Your task to perform on an android device: Search for Italian restaurants on Maps Image 0: 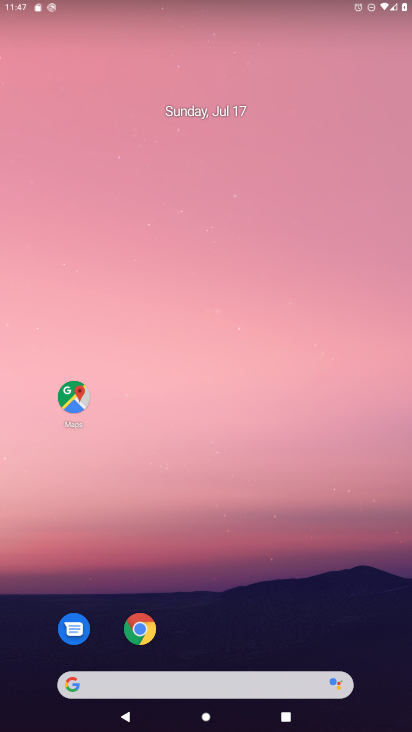
Step 0: click (72, 402)
Your task to perform on an android device: Search for Italian restaurants on Maps Image 1: 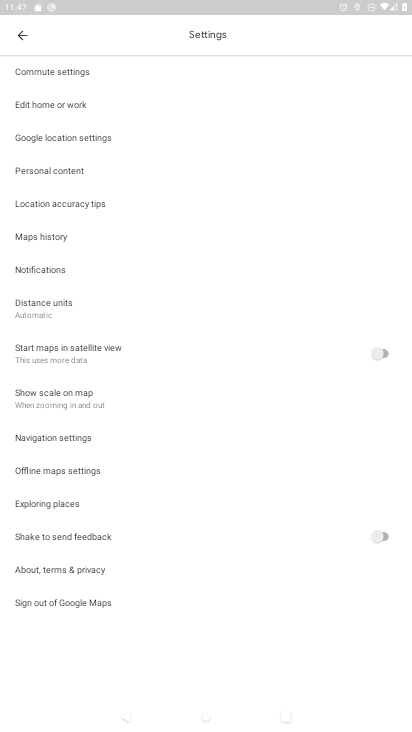
Step 1: press back button
Your task to perform on an android device: Search for Italian restaurants on Maps Image 2: 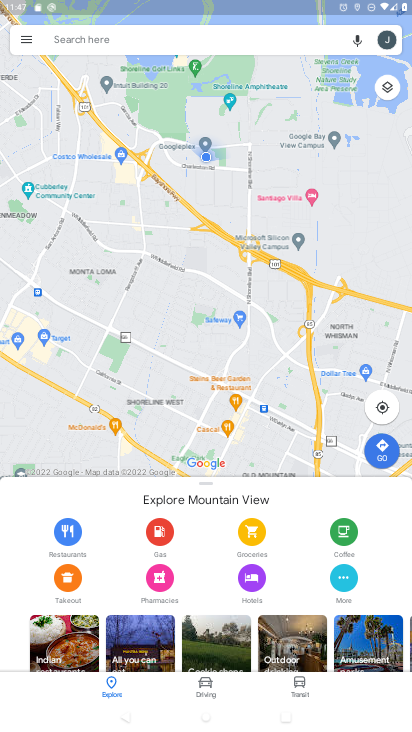
Step 2: click (182, 43)
Your task to perform on an android device: Search for Italian restaurants on Maps Image 3: 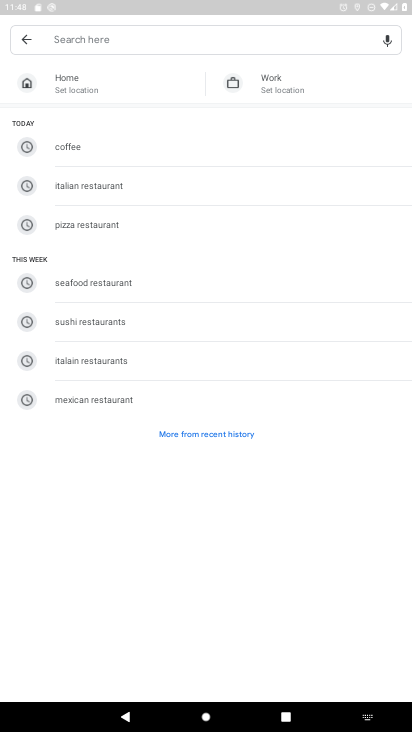
Step 3: type "Italian restaurants"
Your task to perform on an android device: Search for Italian restaurants on Maps Image 4: 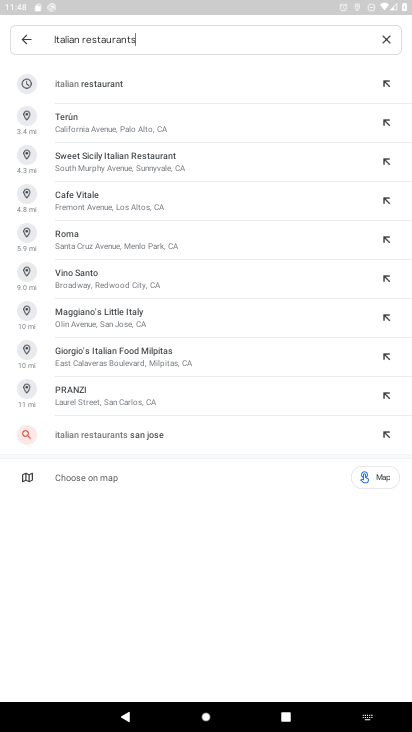
Step 4: click (110, 88)
Your task to perform on an android device: Search for Italian restaurants on Maps Image 5: 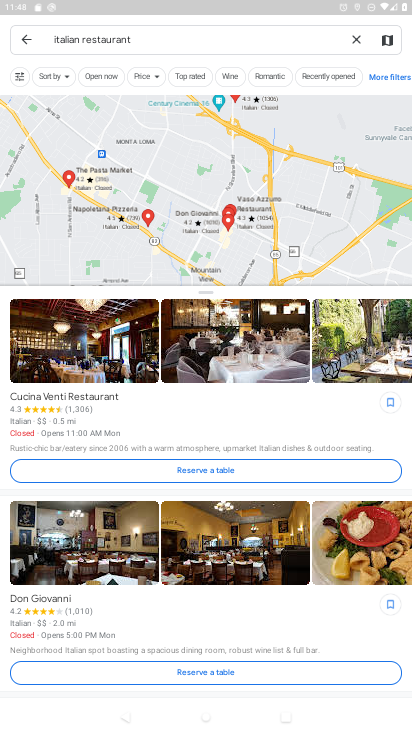
Step 5: task complete